Your task to perform on an android device: refresh tabs in the chrome app Image 0: 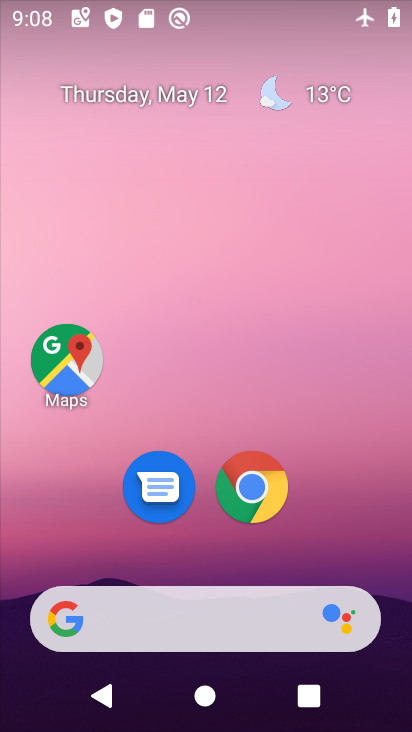
Step 0: click (255, 481)
Your task to perform on an android device: refresh tabs in the chrome app Image 1: 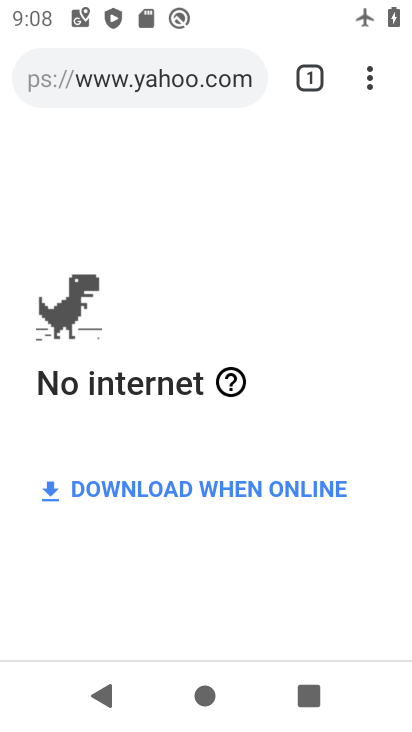
Step 1: click (372, 78)
Your task to perform on an android device: refresh tabs in the chrome app Image 2: 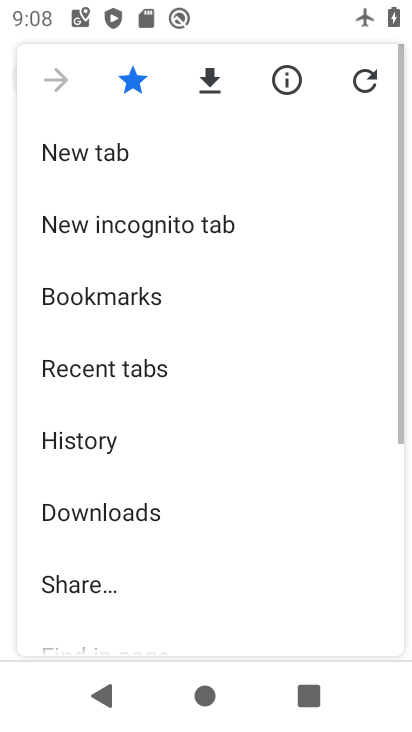
Step 2: click (372, 78)
Your task to perform on an android device: refresh tabs in the chrome app Image 3: 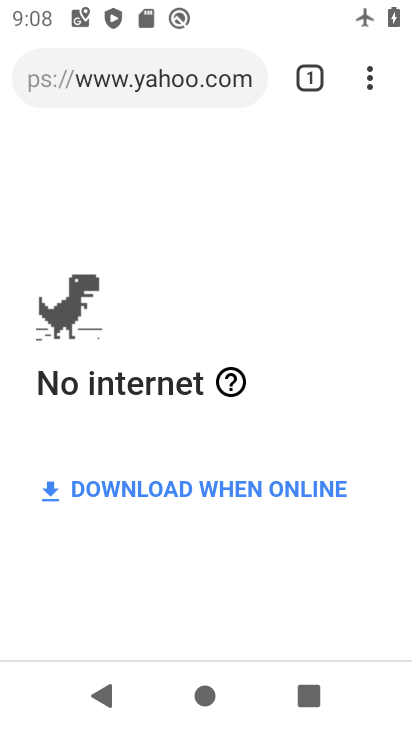
Step 3: task complete